Your task to perform on an android device: allow notifications from all sites in the chrome app Image 0: 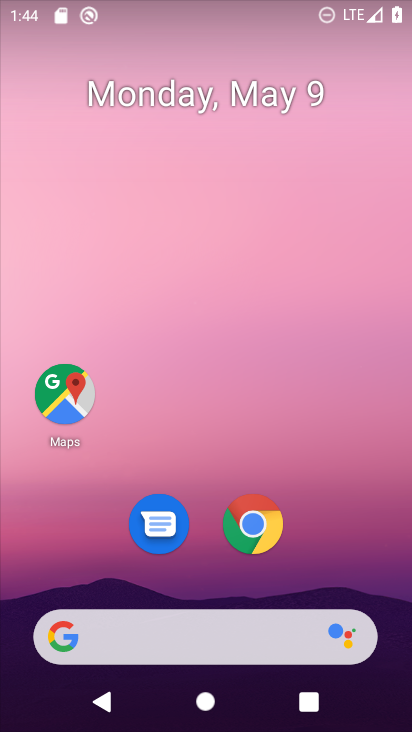
Step 0: click (252, 532)
Your task to perform on an android device: allow notifications from all sites in the chrome app Image 1: 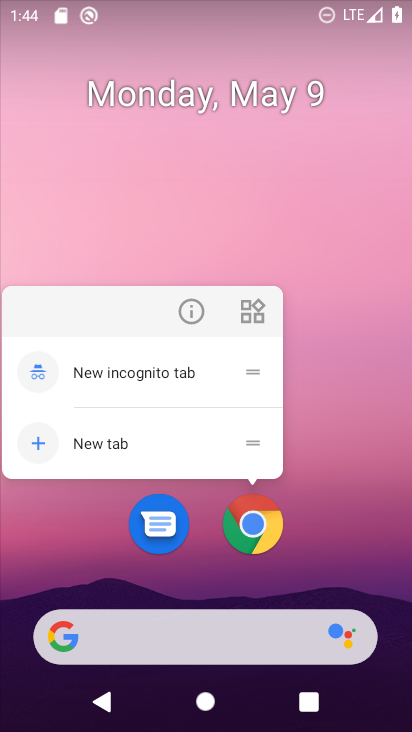
Step 1: click (252, 532)
Your task to perform on an android device: allow notifications from all sites in the chrome app Image 2: 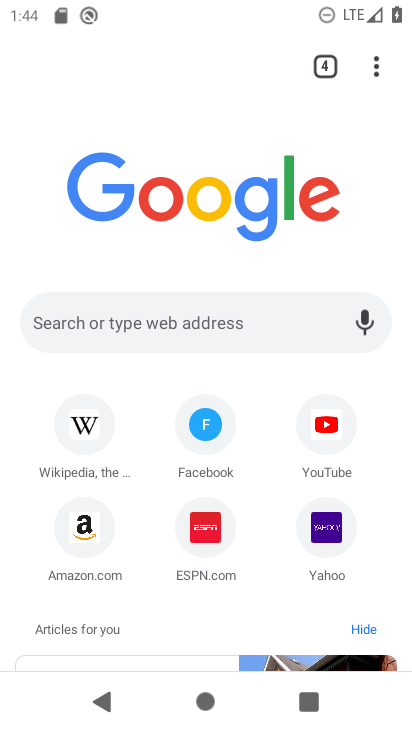
Step 2: click (377, 66)
Your task to perform on an android device: allow notifications from all sites in the chrome app Image 3: 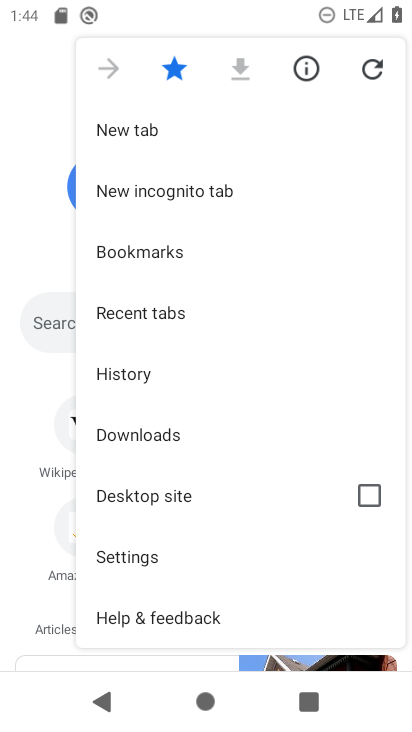
Step 3: click (173, 555)
Your task to perform on an android device: allow notifications from all sites in the chrome app Image 4: 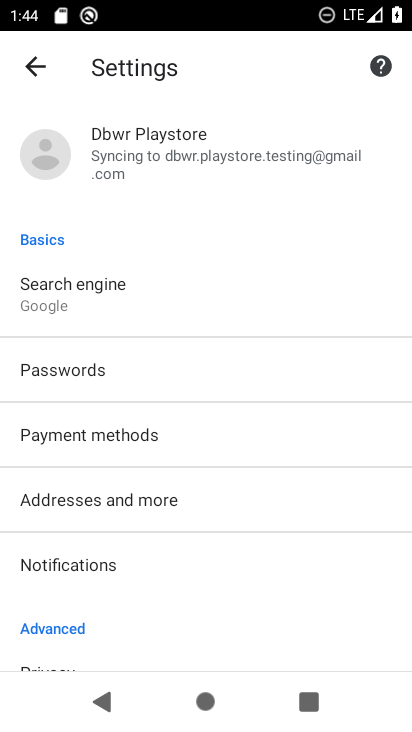
Step 4: click (151, 568)
Your task to perform on an android device: allow notifications from all sites in the chrome app Image 5: 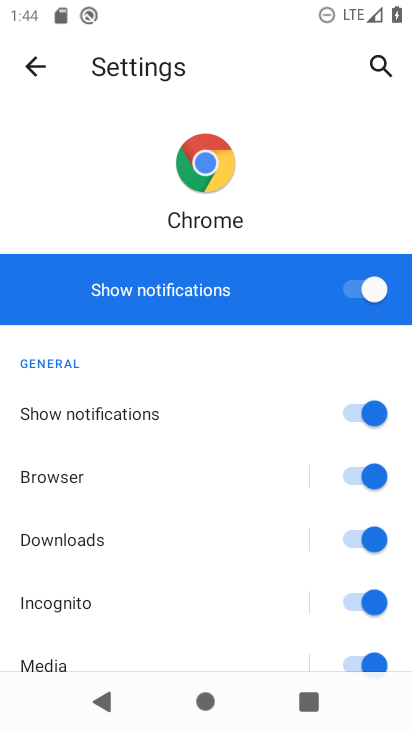
Step 5: task complete